Your task to perform on an android device: Open the phone app and click the voicemail tab. Image 0: 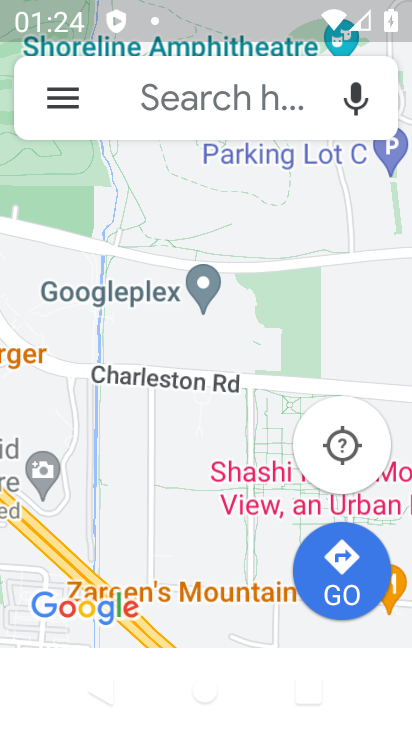
Step 0: press home button
Your task to perform on an android device: Open the phone app and click the voicemail tab. Image 1: 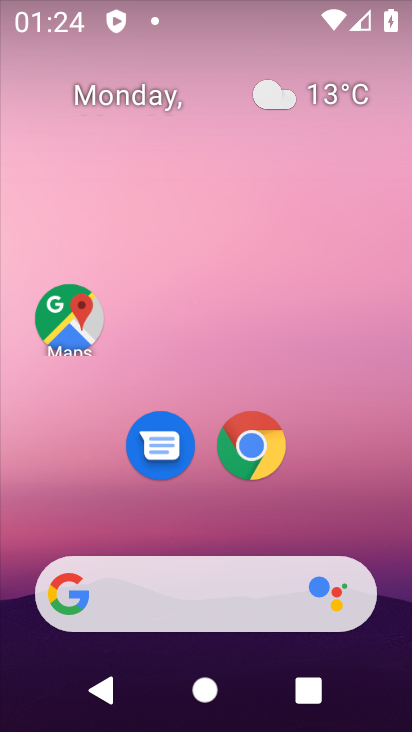
Step 1: drag from (185, 513) to (179, 42)
Your task to perform on an android device: Open the phone app and click the voicemail tab. Image 2: 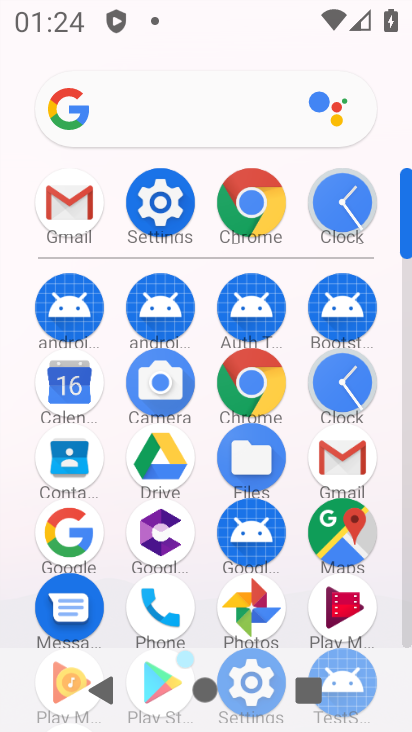
Step 2: click (159, 594)
Your task to perform on an android device: Open the phone app and click the voicemail tab. Image 3: 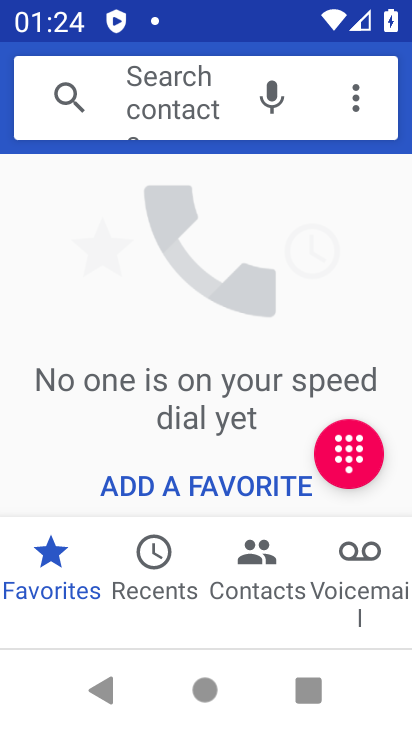
Step 3: click (355, 563)
Your task to perform on an android device: Open the phone app and click the voicemail tab. Image 4: 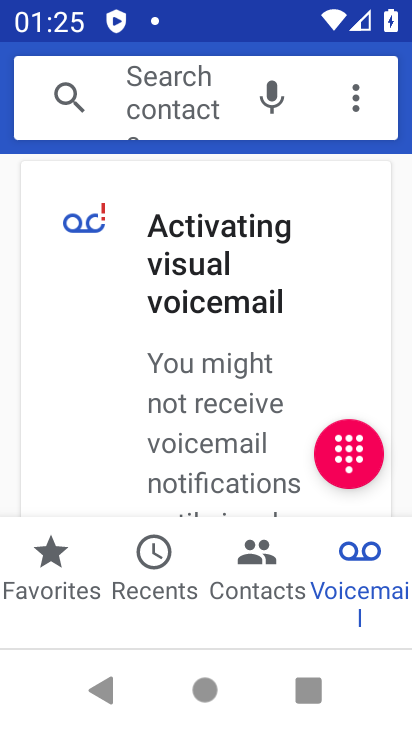
Step 4: task complete